Your task to perform on an android device: Go to battery settings Image 0: 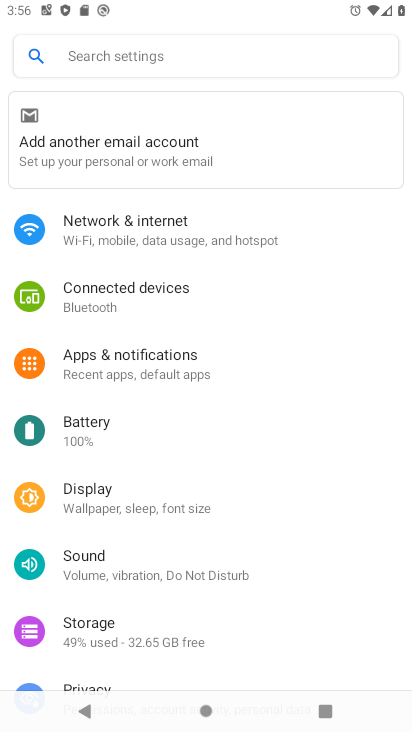
Step 0: press home button
Your task to perform on an android device: Go to battery settings Image 1: 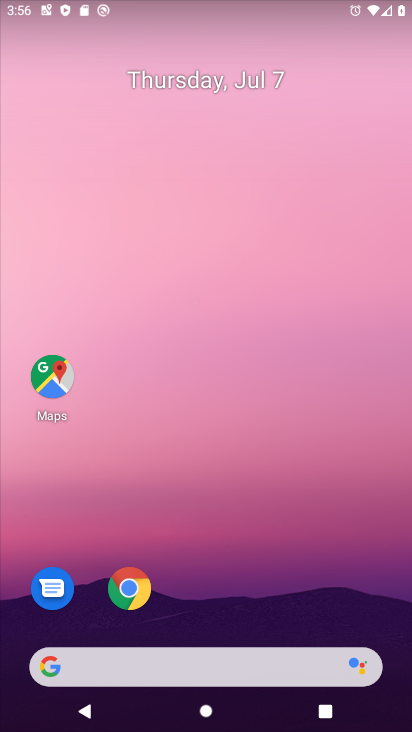
Step 1: drag from (292, 678) to (312, 16)
Your task to perform on an android device: Go to battery settings Image 2: 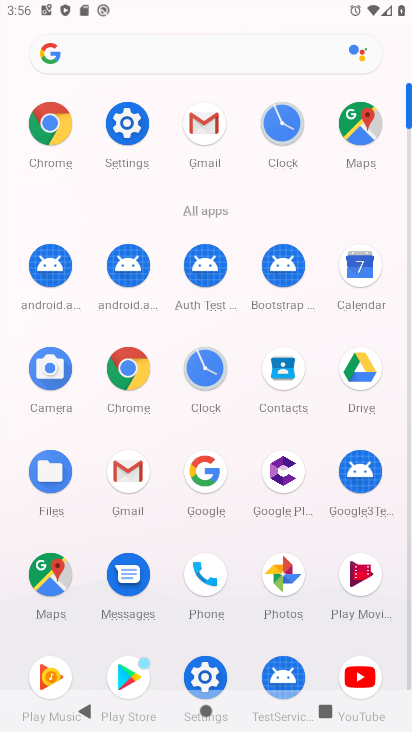
Step 2: click (217, 657)
Your task to perform on an android device: Go to battery settings Image 3: 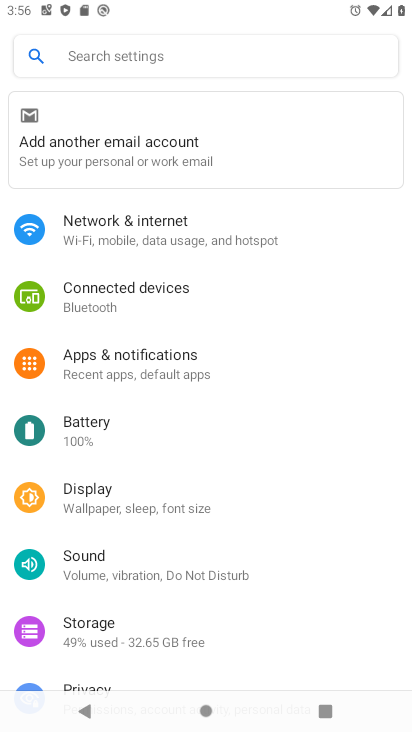
Step 3: click (114, 429)
Your task to perform on an android device: Go to battery settings Image 4: 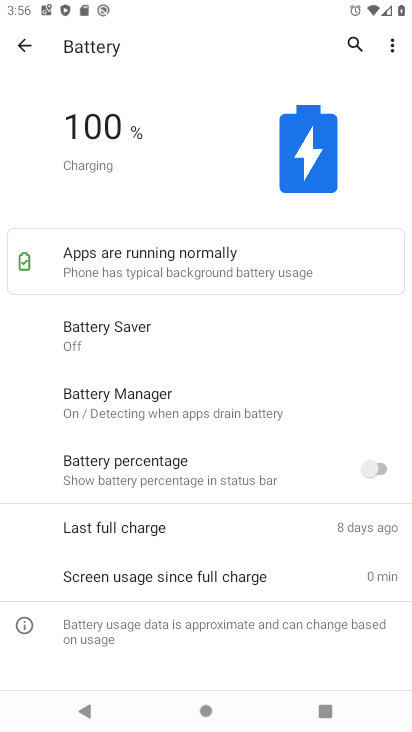
Step 4: task complete